Your task to perform on an android device: turn off wifi Image 0: 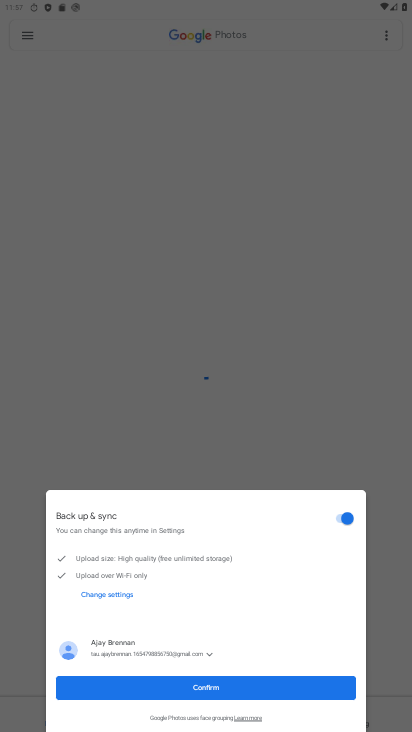
Step 0: press home button
Your task to perform on an android device: turn off wifi Image 1: 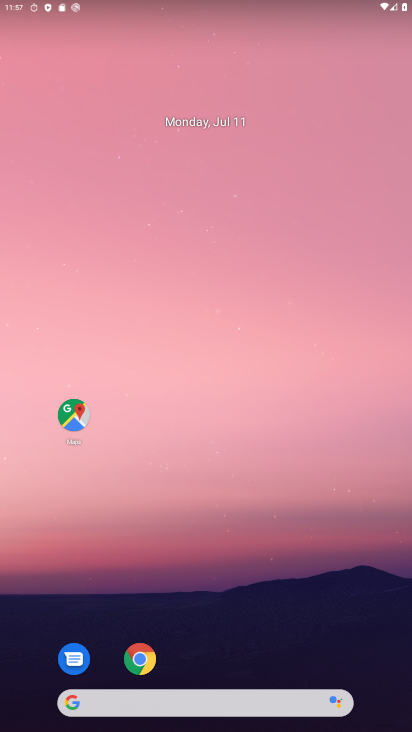
Step 1: drag from (250, 566) to (234, 8)
Your task to perform on an android device: turn off wifi Image 2: 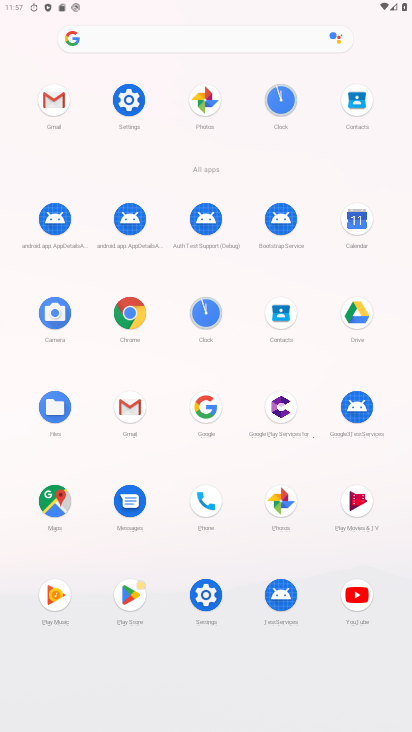
Step 2: click (128, 117)
Your task to perform on an android device: turn off wifi Image 3: 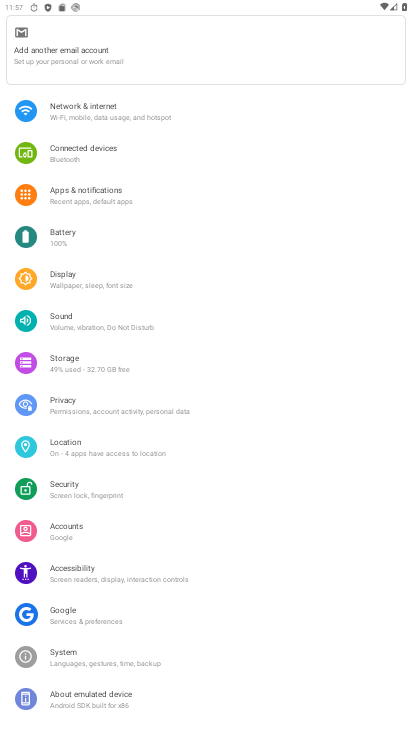
Step 3: click (127, 119)
Your task to perform on an android device: turn off wifi Image 4: 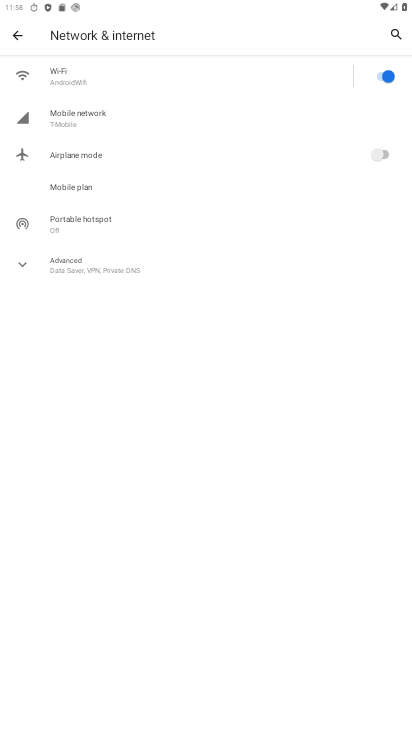
Step 4: click (369, 81)
Your task to perform on an android device: turn off wifi Image 5: 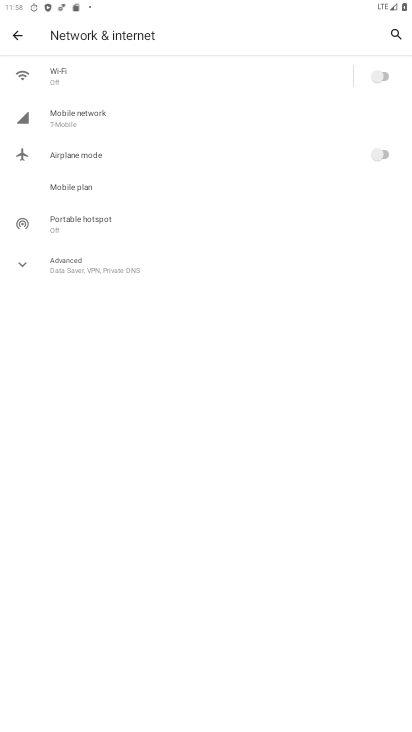
Step 5: task complete